Your task to perform on an android device: turn off location history Image 0: 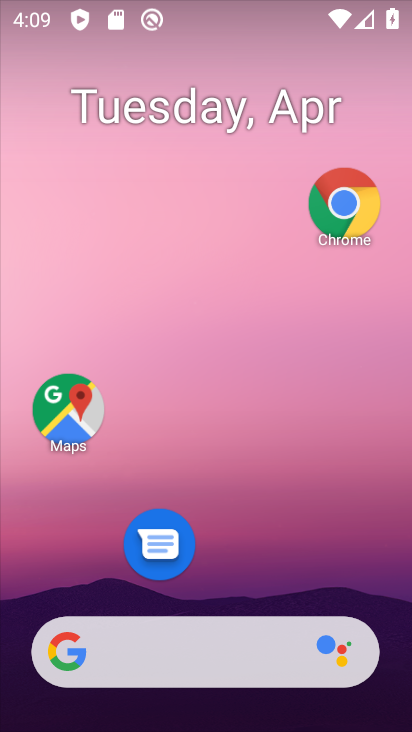
Step 0: drag from (245, 565) to (373, 0)
Your task to perform on an android device: turn off location history Image 1: 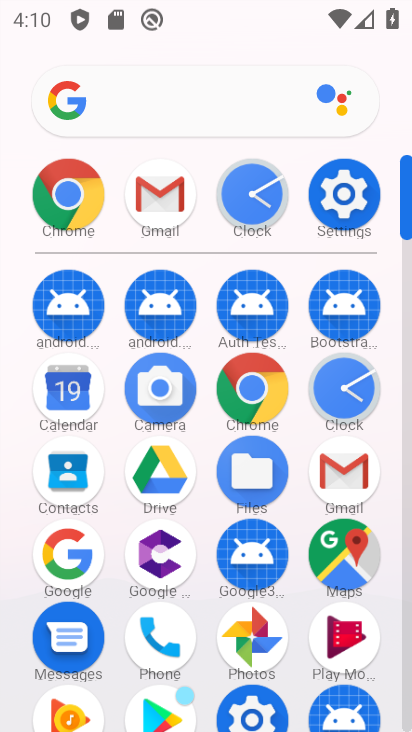
Step 1: click (351, 202)
Your task to perform on an android device: turn off location history Image 2: 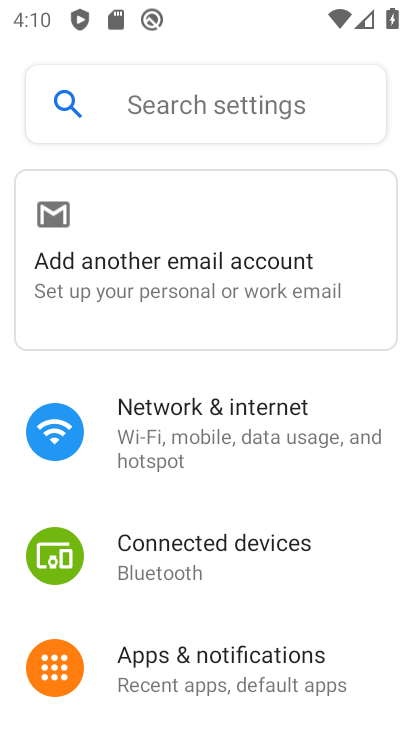
Step 2: drag from (174, 509) to (311, 3)
Your task to perform on an android device: turn off location history Image 3: 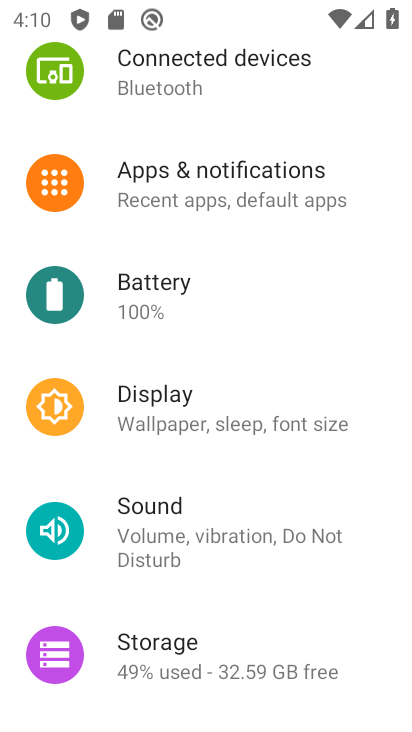
Step 3: drag from (175, 588) to (327, 21)
Your task to perform on an android device: turn off location history Image 4: 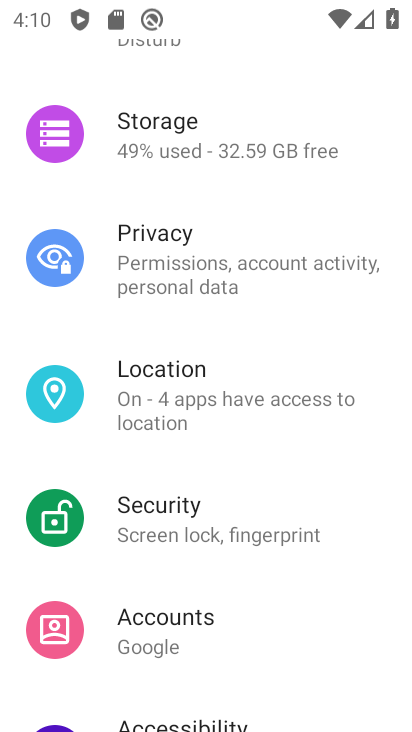
Step 4: click (192, 385)
Your task to perform on an android device: turn off location history Image 5: 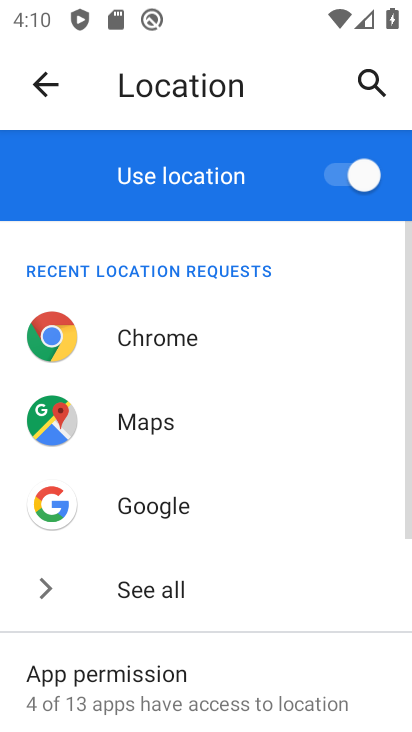
Step 5: drag from (167, 579) to (286, 120)
Your task to perform on an android device: turn off location history Image 6: 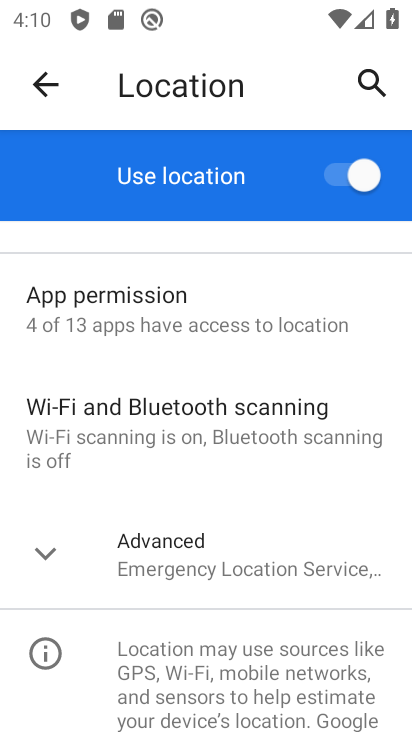
Step 6: click (171, 564)
Your task to perform on an android device: turn off location history Image 7: 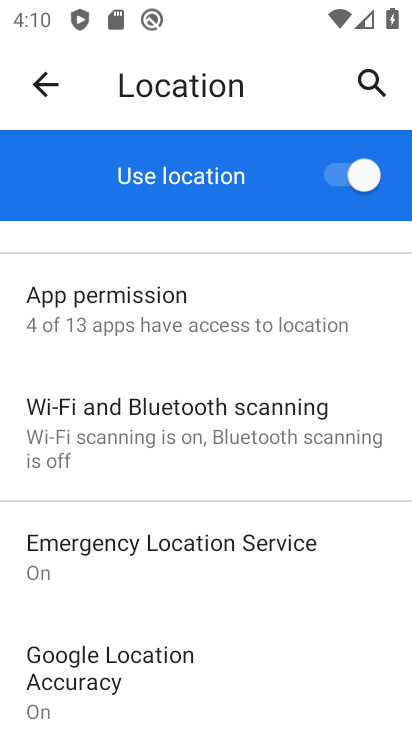
Step 7: drag from (172, 583) to (221, 205)
Your task to perform on an android device: turn off location history Image 8: 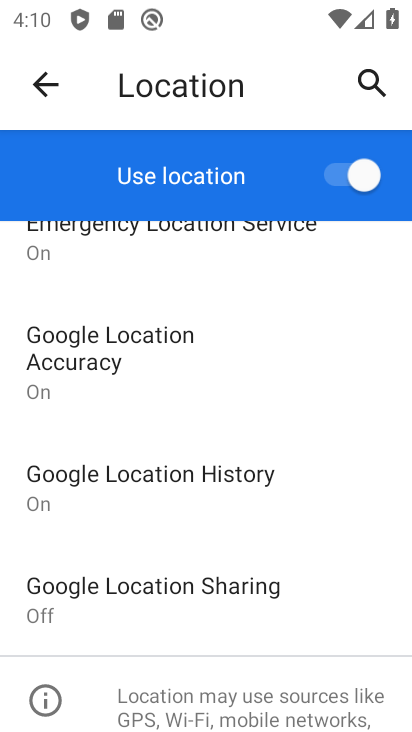
Step 8: click (156, 491)
Your task to perform on an android device: turn off location history Image 9: 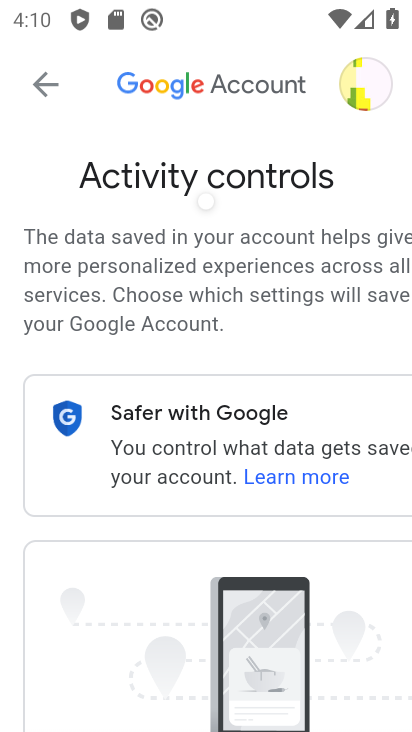
Step 9: task complete